Your task to perform on an android device: delete browsing data in the chrome app Image 0: 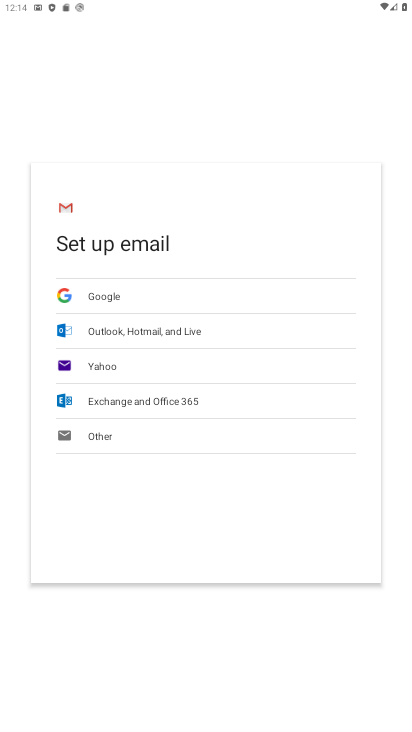
Step 0: press home button
Your task to perform on an android device: delete browsing data in the chrome app Image 1: 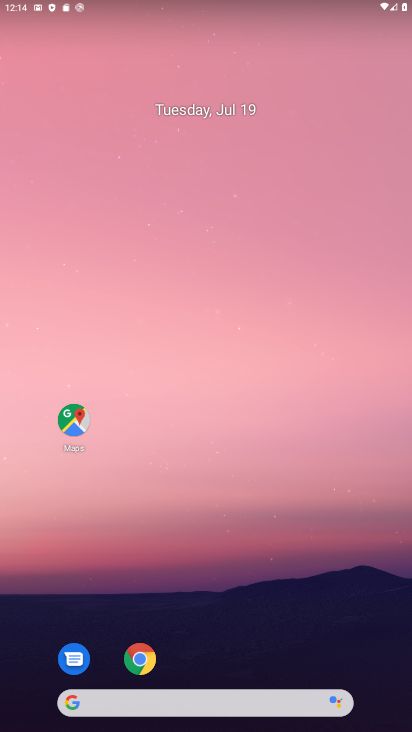
Step 1: click (144, 658)
Your task to perform on an android device: delete browsing data in the chrome app Image 2: 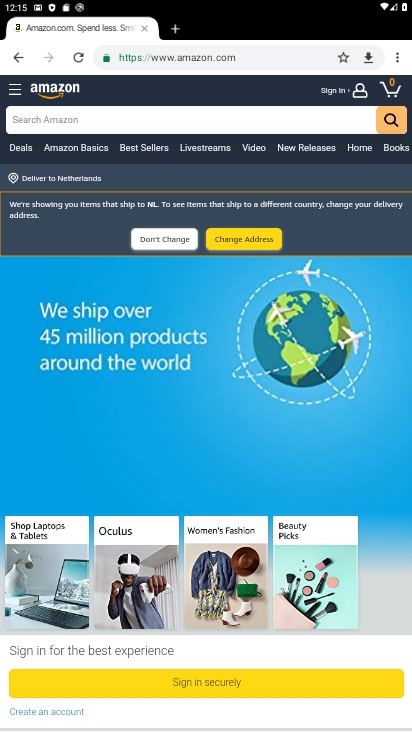
Step 2: drag from (397, 58) to (304, 174)
Your task to perform on an android device: delete browsing data in the chrome app Image 3: 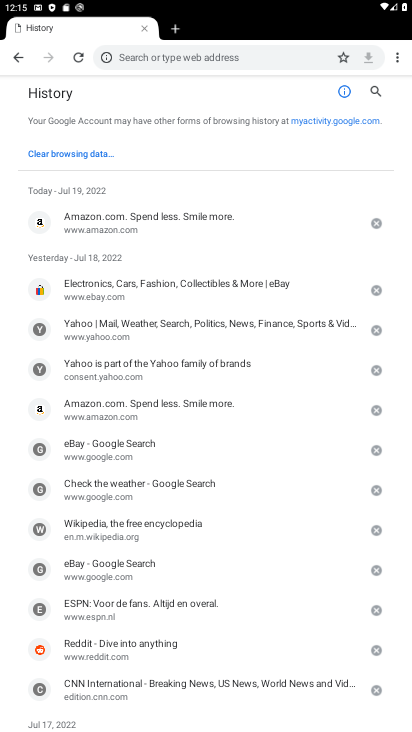
Step 3: click (53, 152)
Your task to perform on an android device: delete browsing data in the chrome app Image 4: 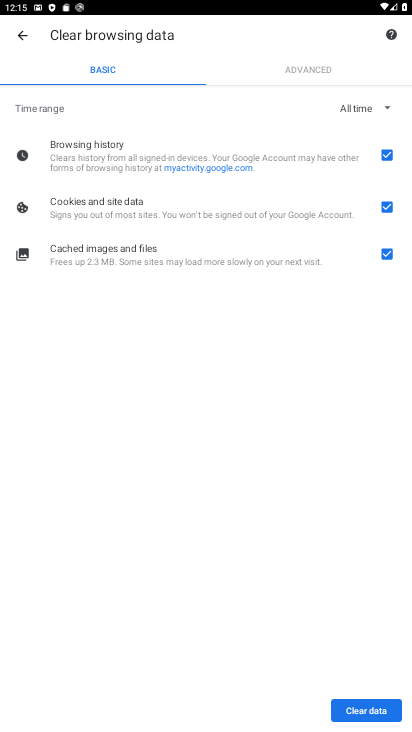
Step 4: click (358, 712)
Your task to perform on an android device: delete browsing data in the chrome app Image 5: 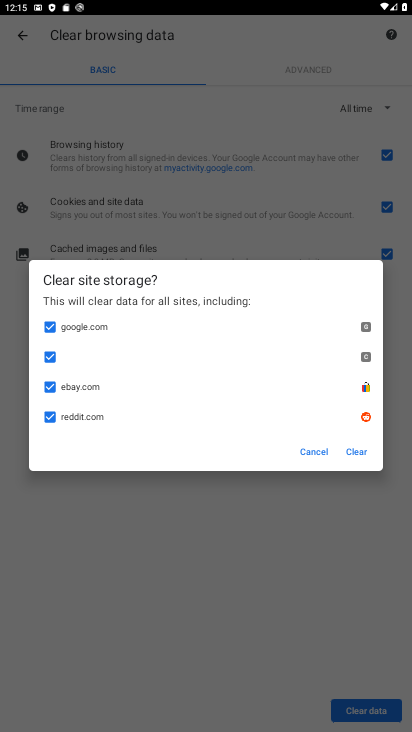
Step 5: click (348, 454)
Your task to perform on an android device: delete browsing data in the chrome app Image 6: 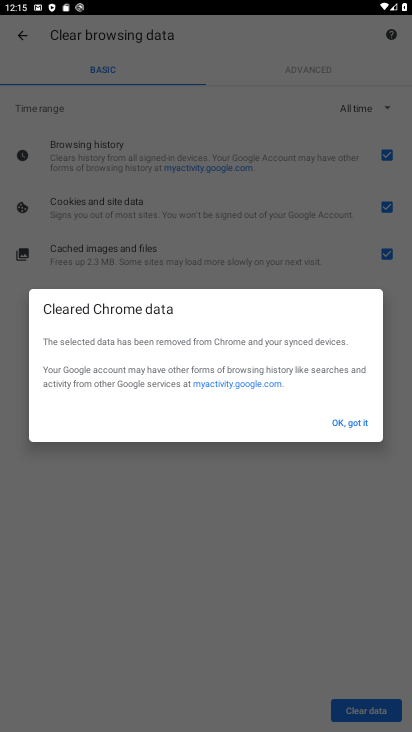
Step 6: click (338, 428)
Your task to perform on an android device: delete browsing data in the chrome app Image 7: 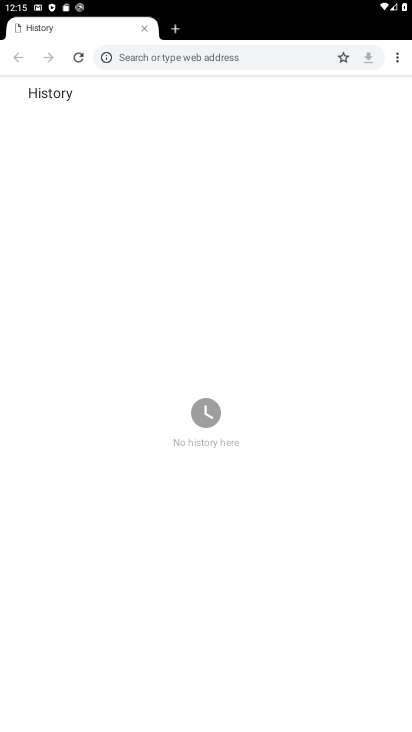
Step 7: task complete